Your task to perform on an android device: What's the weather going to be tomorrow? Image 0: 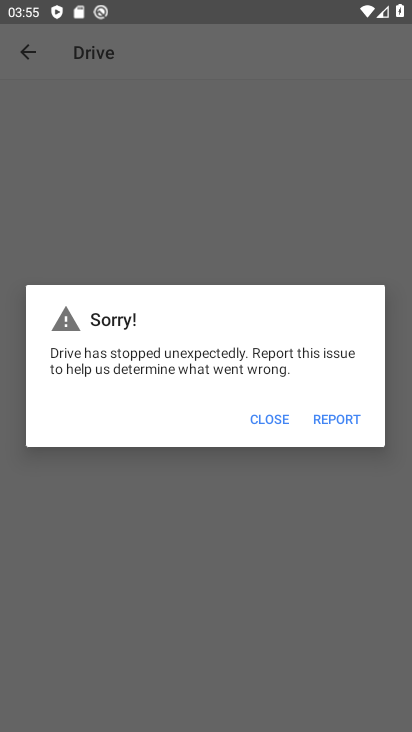
Step 0: press home button
Your task to perform on an android device: What's the weather going to be tomorrow? Image 1: 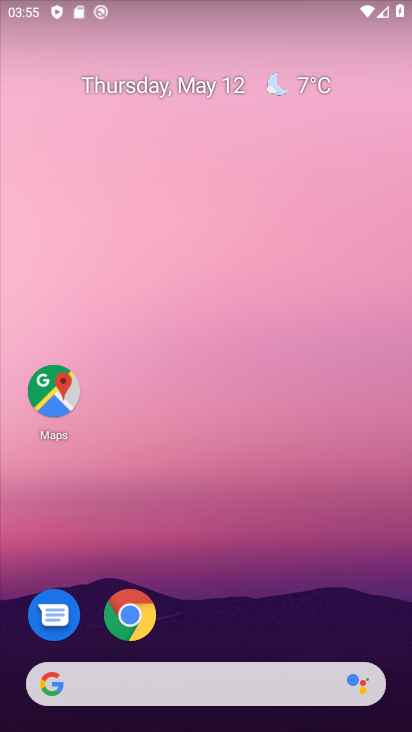
Step 1: drag from (254, 562) to (258, 105)
Your task to perform on an android device: What's the weather going to be tomorrow? Image 2: 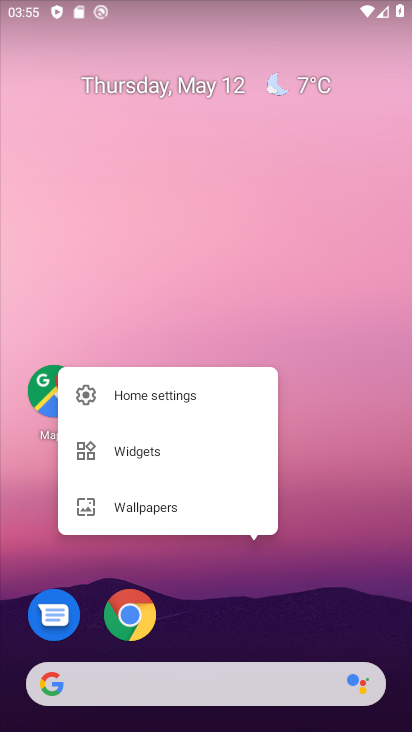
Step 2: click (280, 605)
Your task to perform on an android device: What's the weather going to be tomorrow? Image 3: 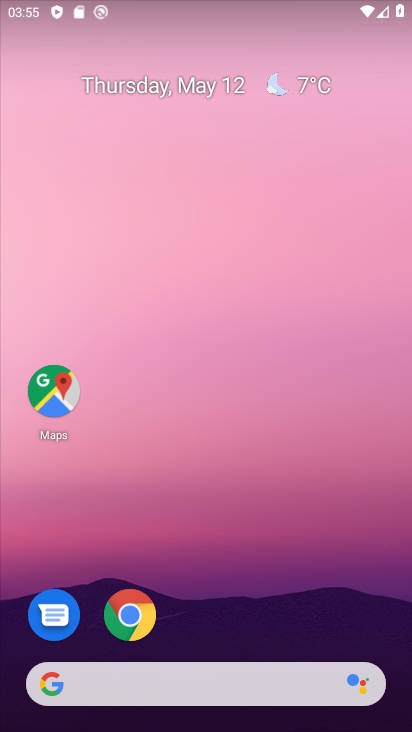
Step 3: click (325, 88)
Your task to perform on an android device: What's the weather going to be tomorrow? Image 4: 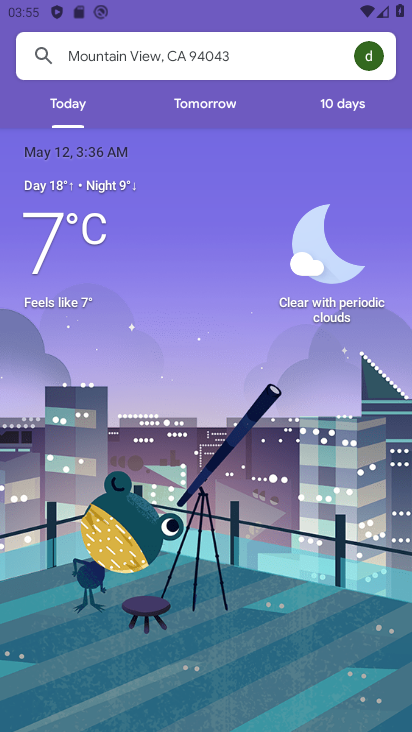
Step 4: click (224, 110)
Your task to perform on an android device: What's the weather going to be tomorrow? Image 5: 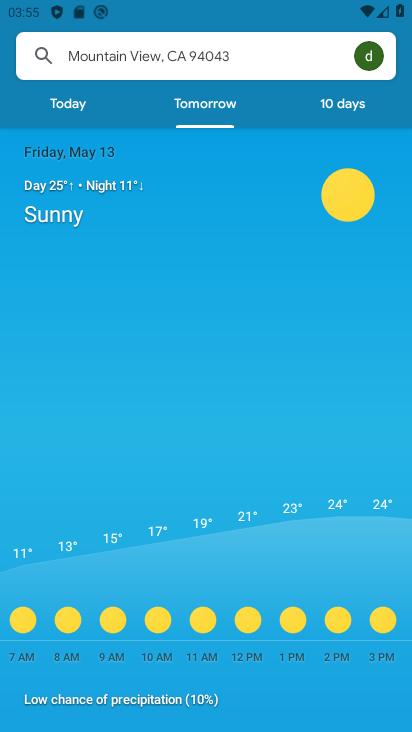
Step 5: task complete